Your task to perform on an android device: Open the phone app and click the voicemail tab. Image 0: 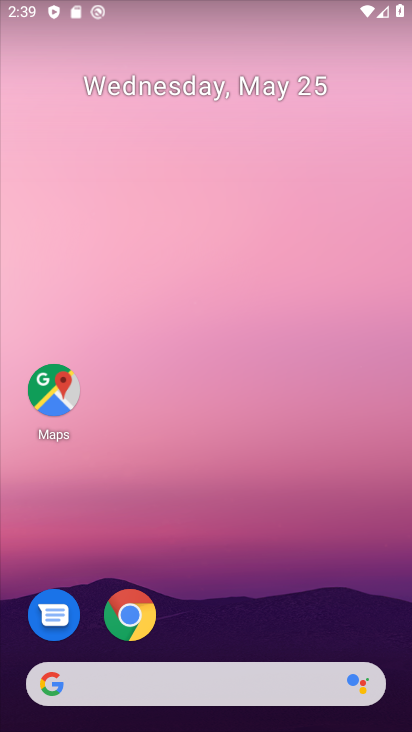
Step 0: drag from (250, 604) to (255, 178)
Your task to perform on an android device: Open the phone app and click the voicemail tab. Image 1: 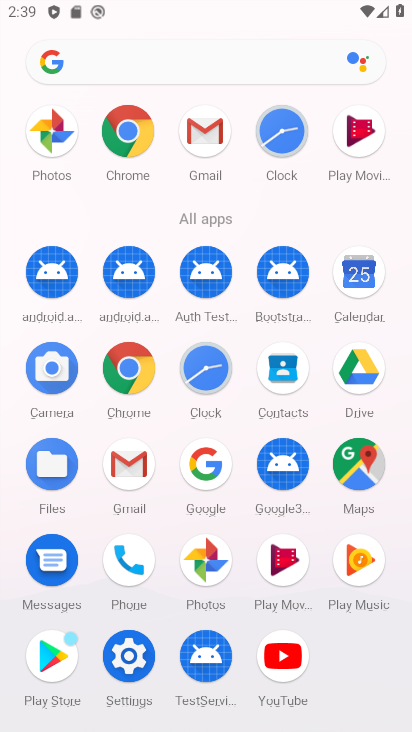
Step 1: click (133, 561)
Your task to perform on an android device: Open the phone app and click the voicemail tab. Image 2: 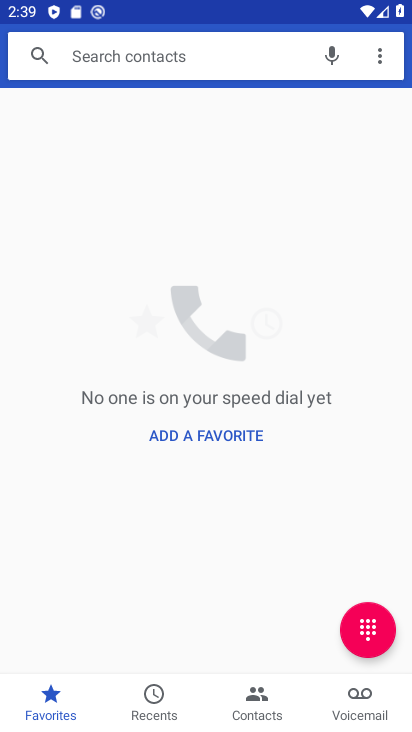
Step 2: click (358, 700)
Your task to perform on an android device: Open the phone app and click the voicemail tab. Image 3: 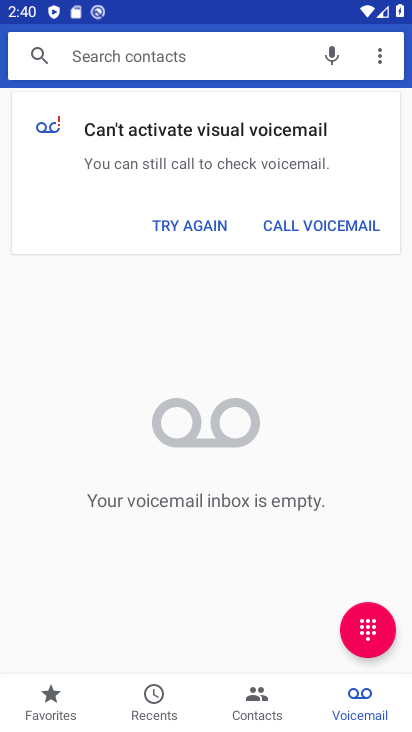
Step 3: task complete